Your task to perform on an android device: Open display settings Image 0: 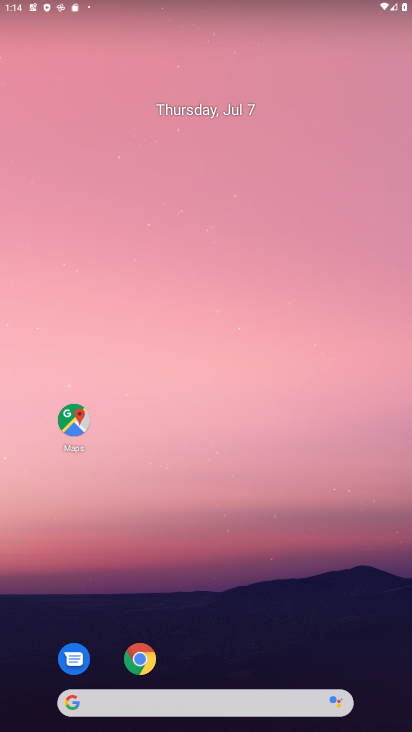
Step 0: drag from (214, 578) to (77, 152)
Your task to perform on an android device: Open display settings Image 1: 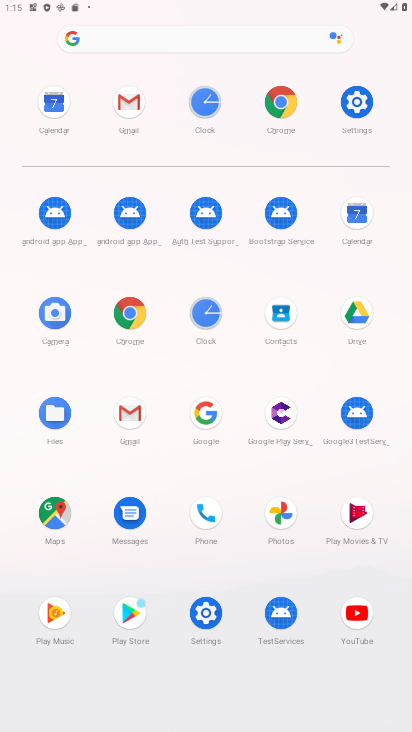
Step 1: click (359, 96)
Your task to perform on an android device: Open display settings Image 2: 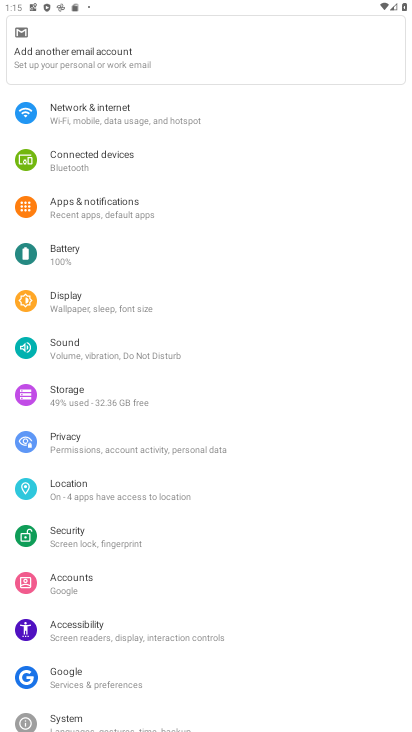
Step 2: click (57, 296)
Your task to perform on an android device: Open display settings Image 3: 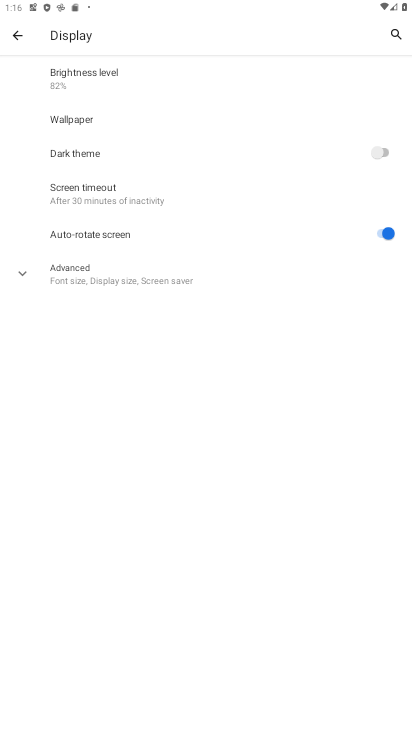
Step 3: task complete